Your task to perform on an android device: clear history in the chrome app Image 0: 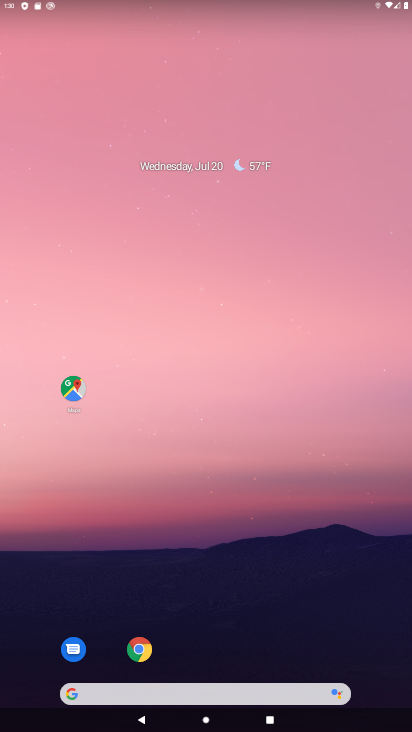
Step 0: drag from (186, 656) to (191, 248)
Your task to perform on an android device: clear history in the chrome app Image 1: 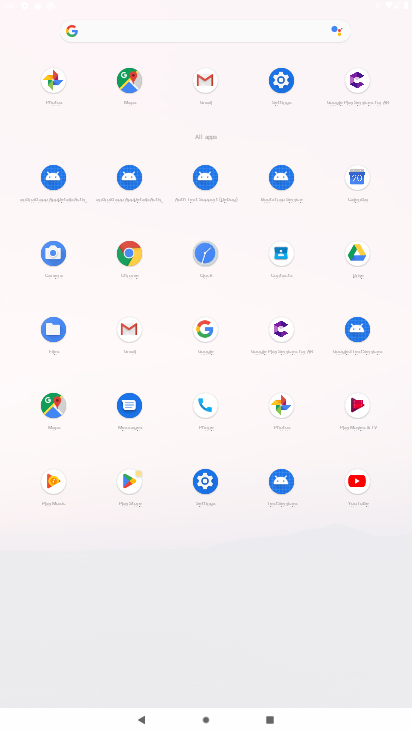
Step 1: click (129, 265)
Your task to perform on an android device: clear history in the chrome app Image 2: 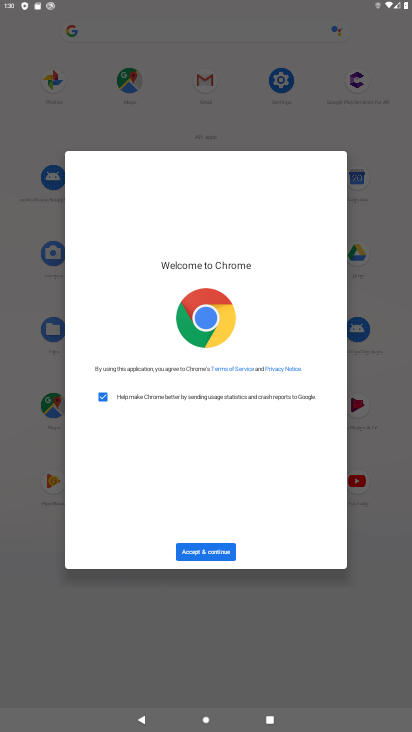
Step 2: click (169, 563)
Your task to perform on an android device: clear history in the chrome app Image 3: 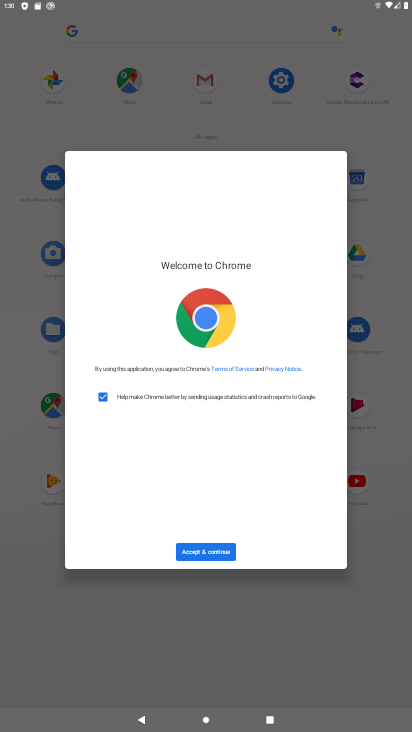
Step 3: click (192, 553)
Your task to perform on an android device: clear history in the chrome app Image 4: 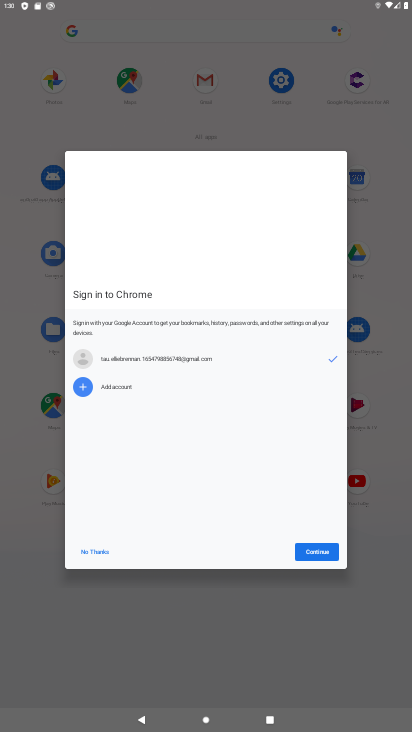
Step 4: click (306, 549)
Your task to perform on an android device: clear history in the chrome app Image 5: 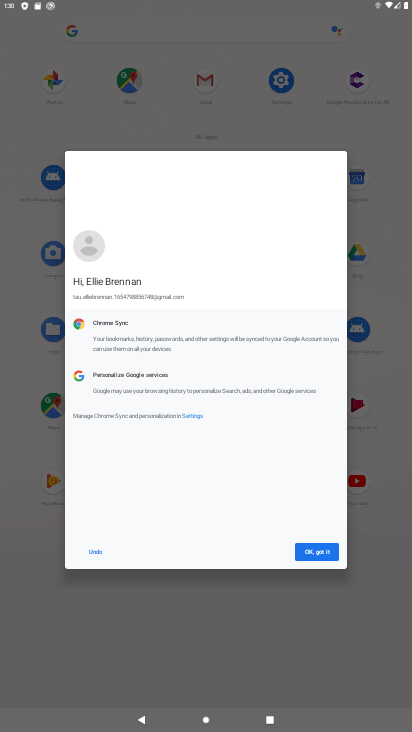
Step 5: click (306, 549)
Your task to perform on an android device: clear history in the chrome app Image 6: 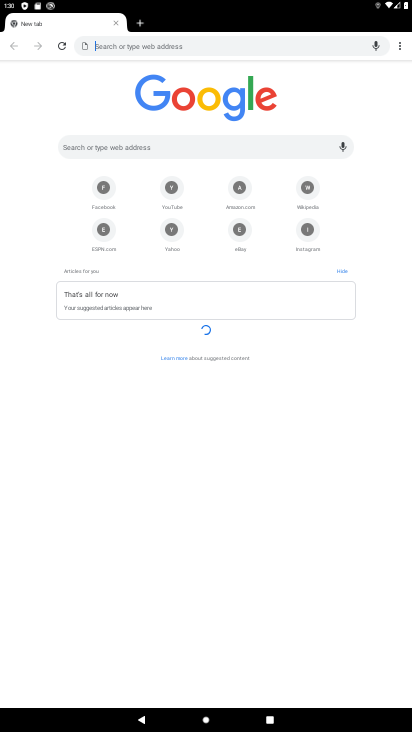
Step 6: click (396, 47)
Your task to perform on an android device: clear history in the chrome app Image 7: 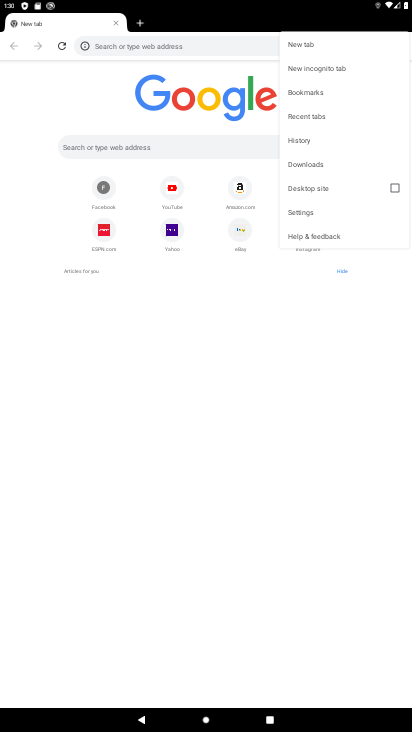
Step 7: click (309, 209)
Your task to perform on an android device: clear history in the chrome app Image 8: 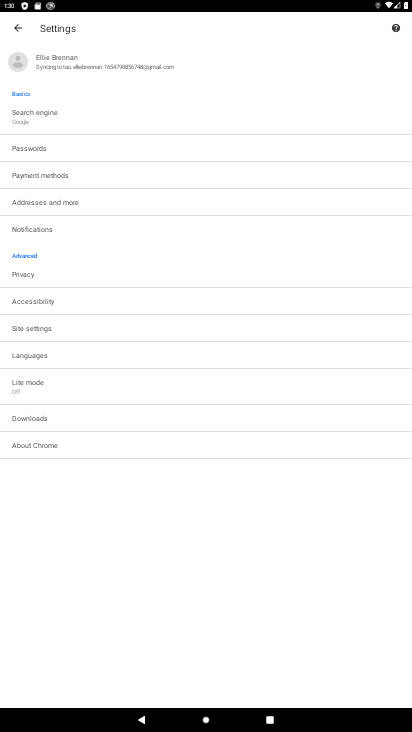
Step 8: click (15, 29)
Your task to perform on an android device: clear history in the chrome app Image 9: 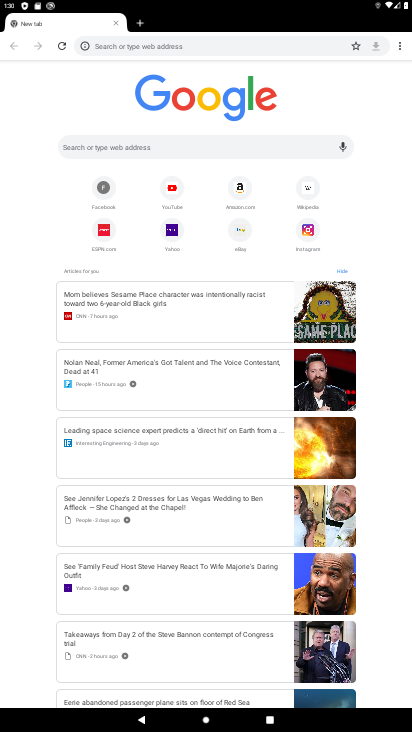
Step 9: click (390, 50)
Your task to perform on an android device: clear history in the chrome app Image 10: 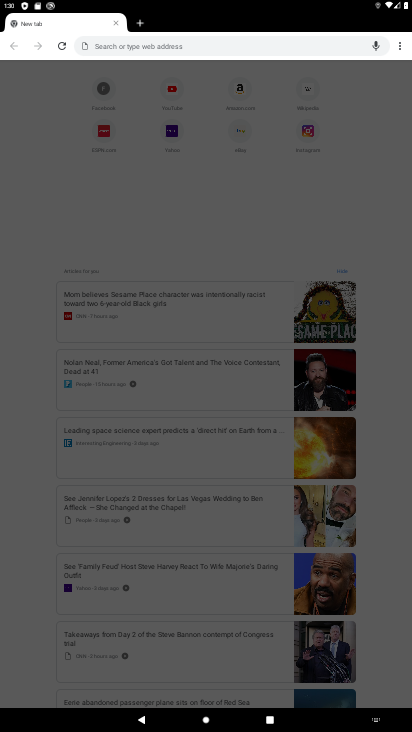
Step 10: click (397, 50)
Your task to perform on an android device: clear history in the chrome app Image 11: 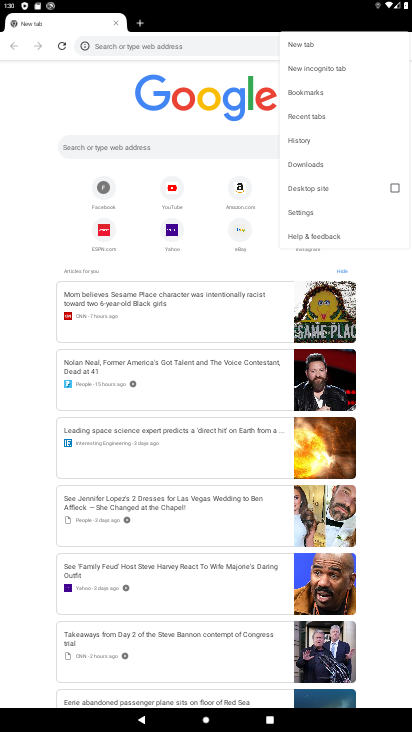
Step 11: click (310, 144)
Your task to perform on an android device: clear history in the chrome app Image 12: 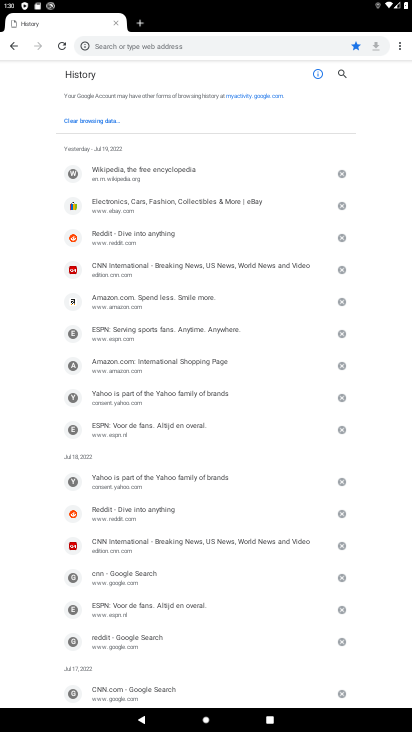
Step 12: click (99, 132)
Your task to perform on an android device: clear history in the chrome app Image 13: 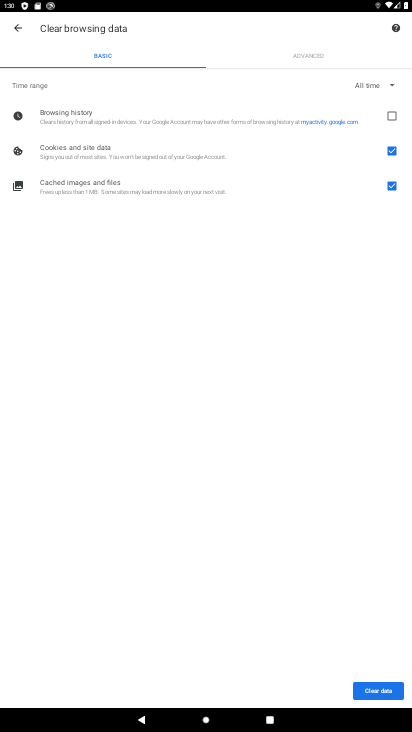
Step 13: click (391, 114)
Your task to perform on an android device: clear history in the chrome app Image 14: 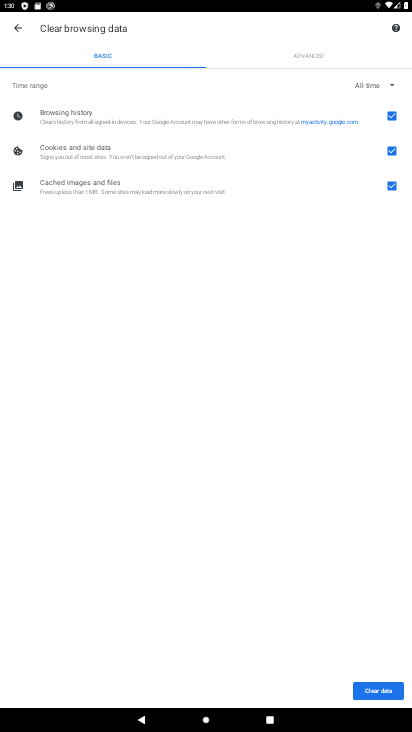
Step 14: click (392, 152)
Your task to perform on an android device: clear history in the chrome app Image 15: 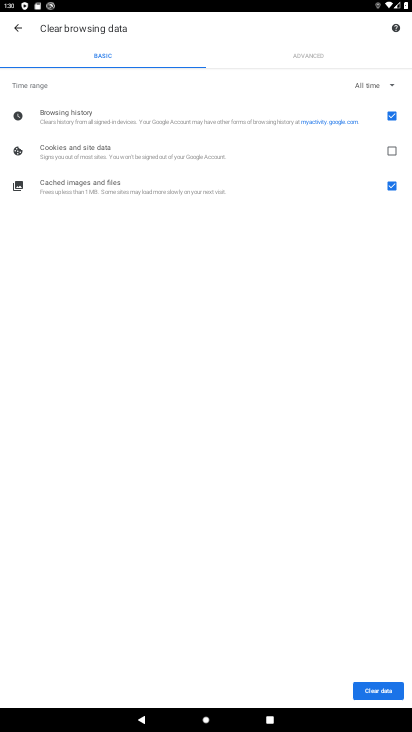
Step 15: click (392, 184)
Your task to perform on an android device: clear history in the chrome app Image 16: 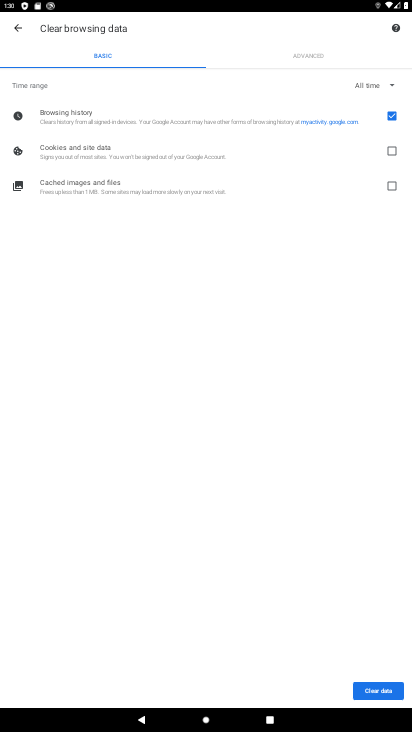
Step 16: click (373, 697)
Your task to perform on an android device: clear history in the chrome app Image 17: 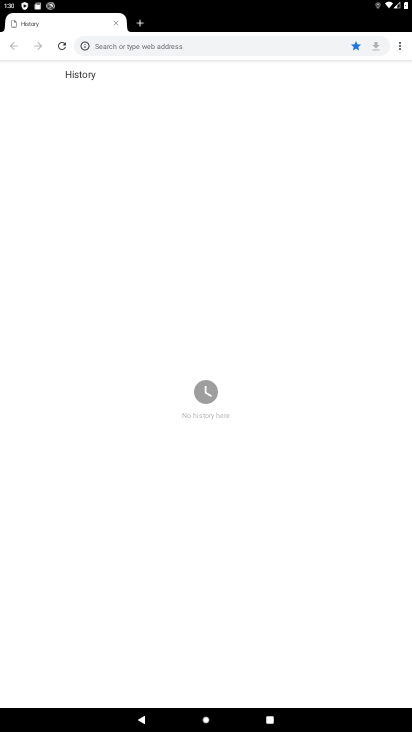
Step 17: task complete